Your task to perform on an android device: open the mobile data screen to see how much data has been used Image 0: 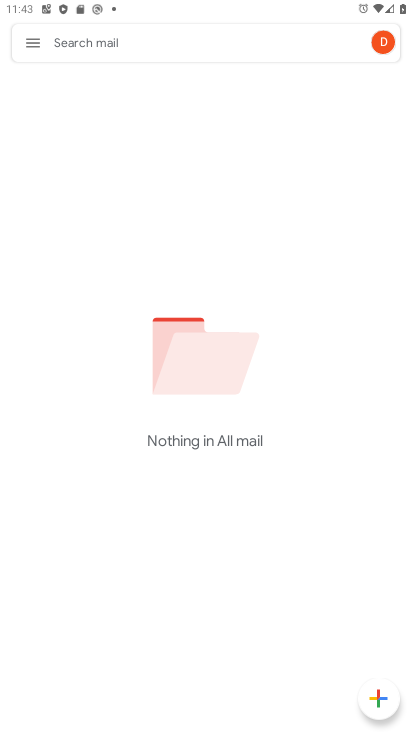
Step 0: press home button
Your task to perform on an android device: open the mobile data screen to see how much data has been used Image 1: 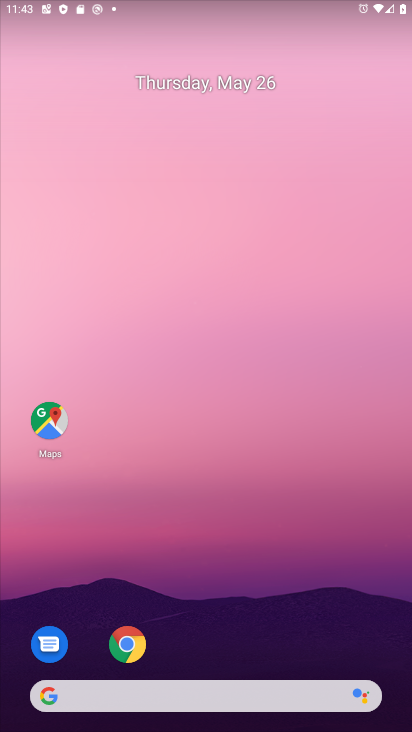
Step 1: drag from (219, 638) to (208, 111)
Your task to perform on an android device: open the mobile data screen to see how much data has been used Image 2: 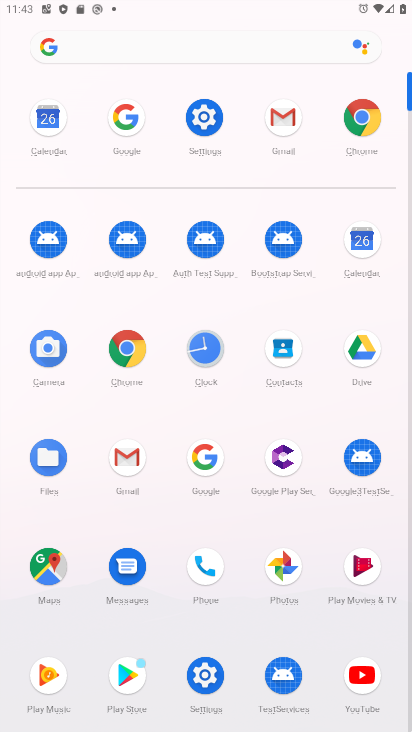
Step 2: click (210, 111)
Your task to perform on an android device: open the mobile data screen to see how much data has been used Image 3: 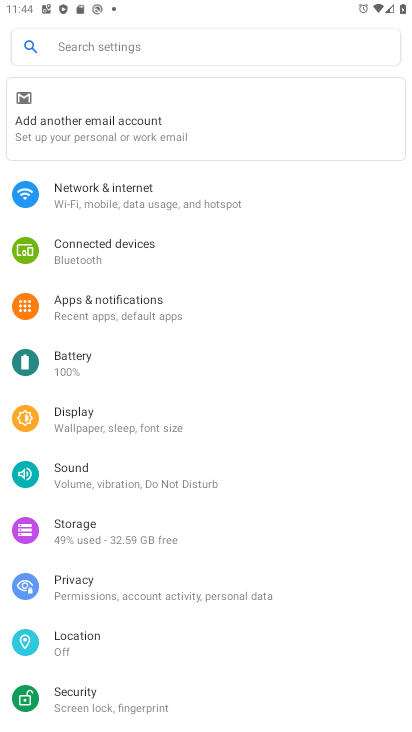
Step 3: click (134, 223)
Your task to perform on an android device: open the mobile data screen to see how much data has been used Image 4: 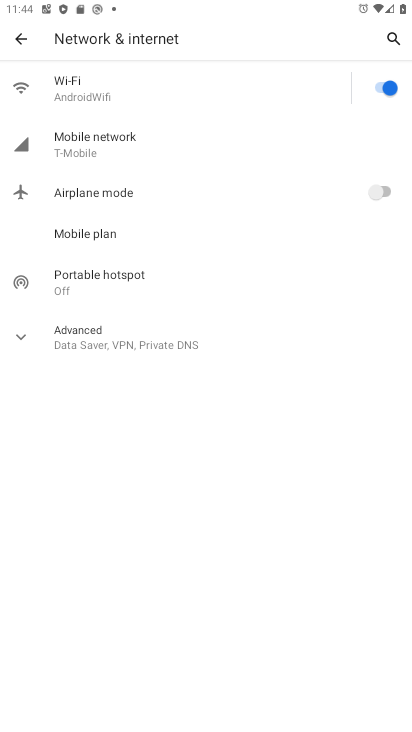
Step 4: click (136, 151)
Your task to perform on an android device: open the mobile data screen to see how much data has been used Image 5: 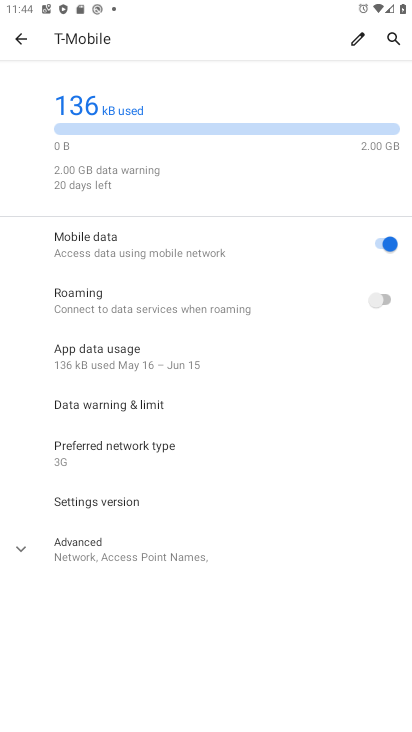
Step 5: click (139, 358)
Your task to perform on an android device: open the mobile data screen to see how much data has been used Image 6: 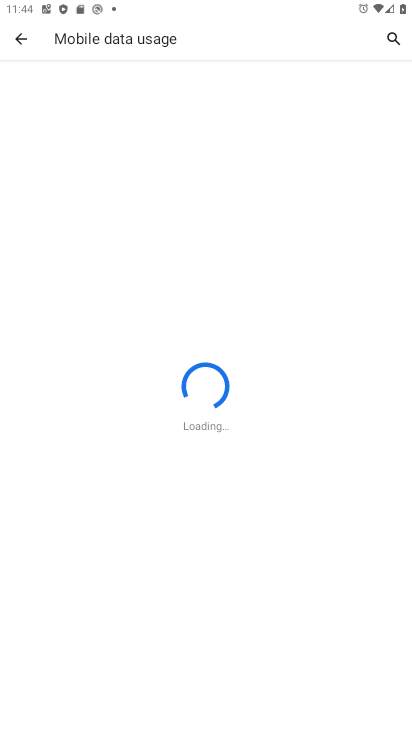
Step 6: task complete